Your task to perform on an android device: Go to Amazon Image 0: 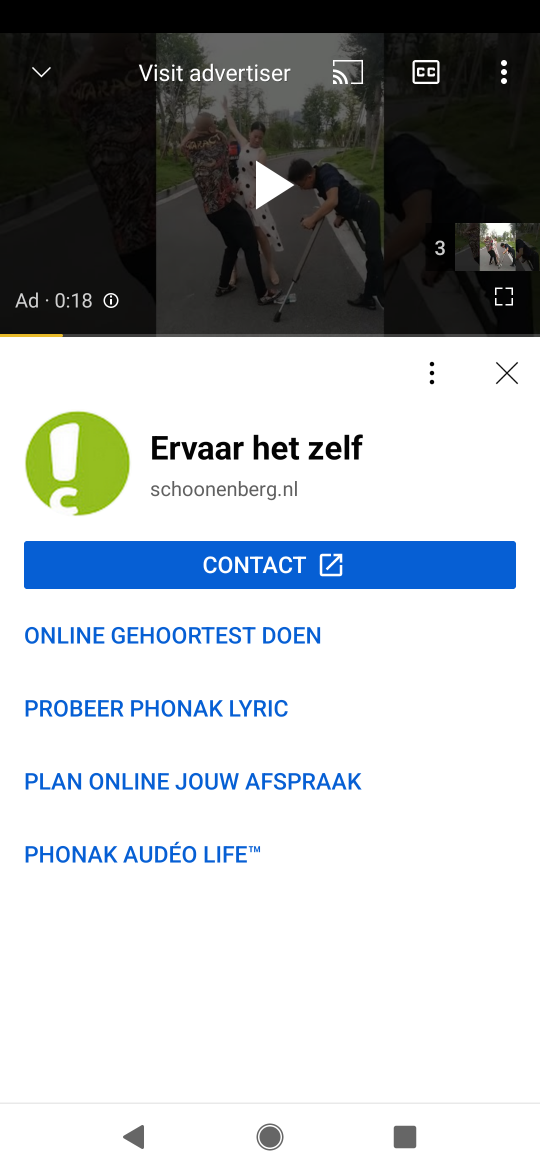
Step 0: press home button
Your task to perform on an android device: Go to Amazon Image 1: 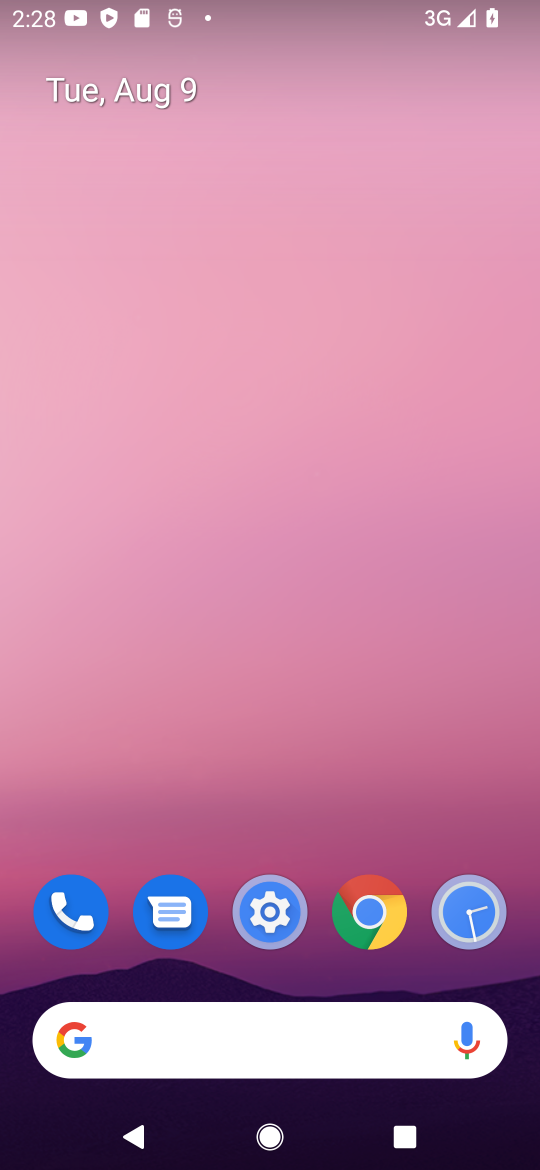
Step 1: click (376, 920)
Your task to perform on an android device: Go to Amazon Image 2: 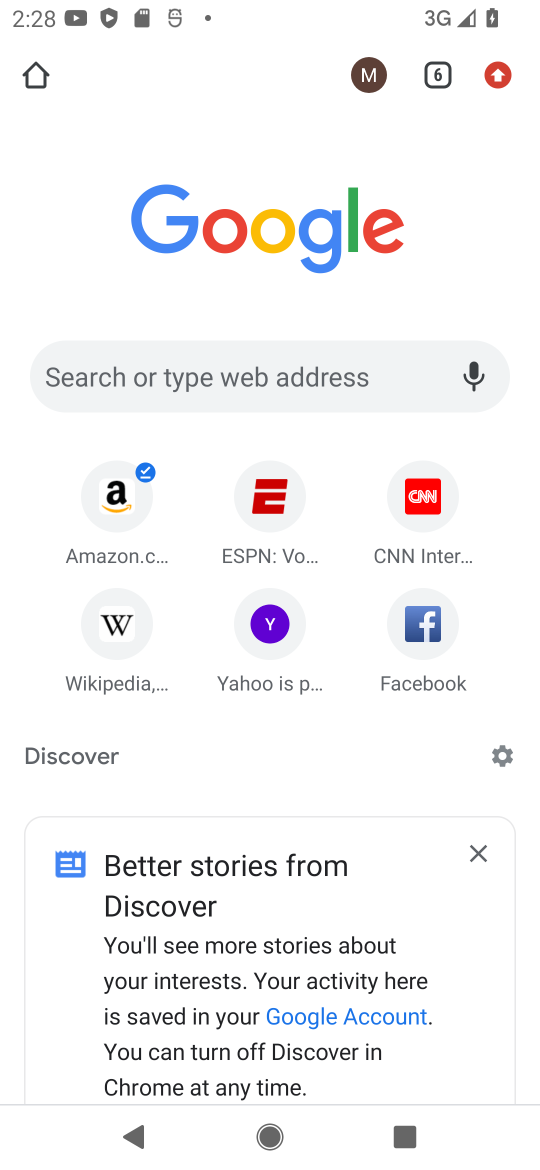
Step 2: click (116, 493)
Your task to perform on an android device: Go to Amazon Image 3: 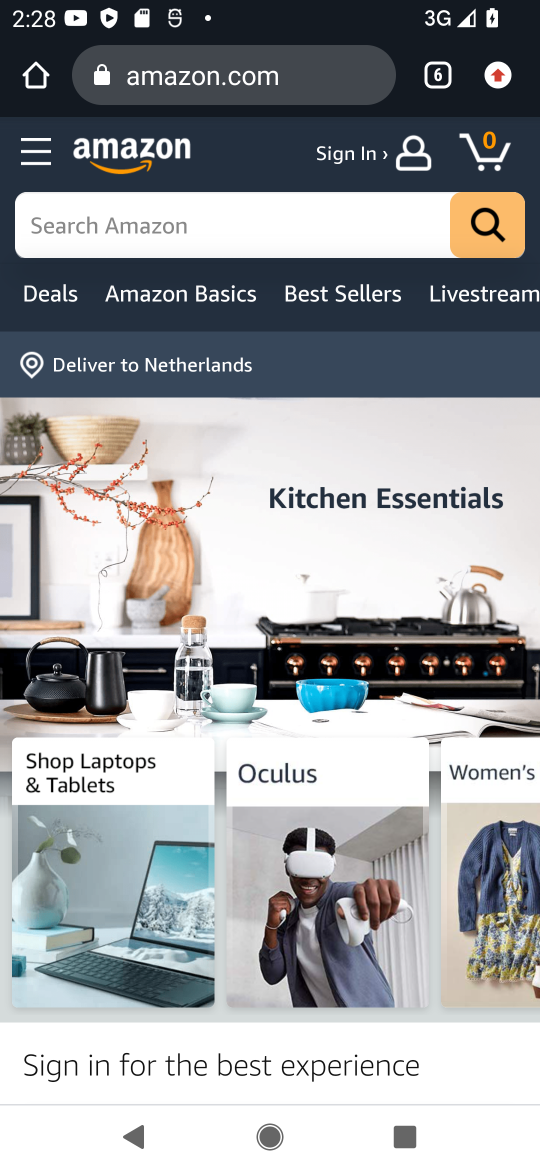
Step 3: task complete